Your task to perform on an android device: turn on the 12-hour format for clock Image 0: 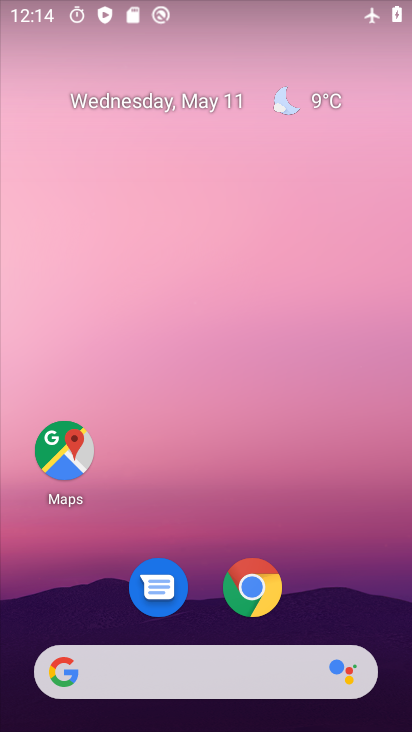
Step 0: drag from (385, 640) to (212, 196)
Your task to perform on an android device: turn on the 12-hour format for clock Image 1: 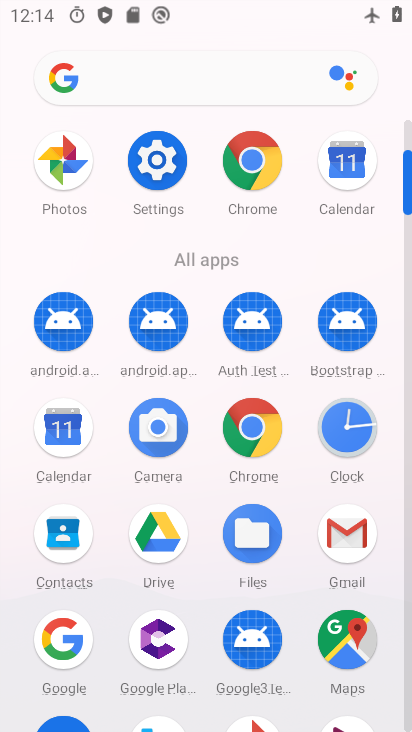
Step 1: click (339, 400)
Your task to perform on an android device: turn on the 12-hour format for clock Image 2: 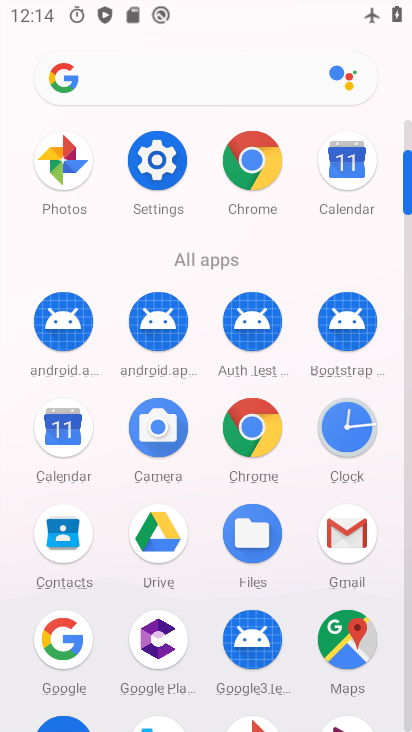
Step 2: click (343, 415)
Your task to perform on an android device: turn on the 12-hour format for clock Image 3: 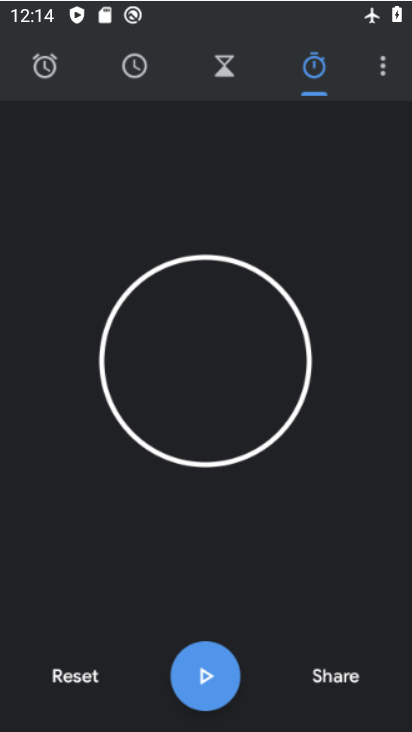
Step 3: click (329, 402)
Your task to perform on an android device: turn on the 12-hour format for clock Image 4: 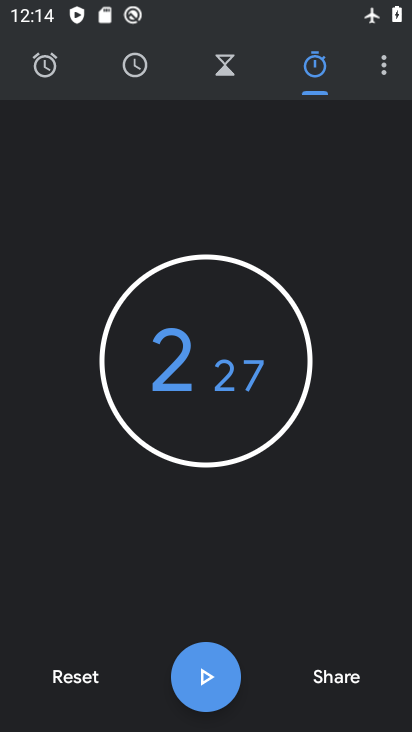
Step 4: click (380, 62)
Your task to perform on an android device: turn on the 12-hour format for clock Image 5: 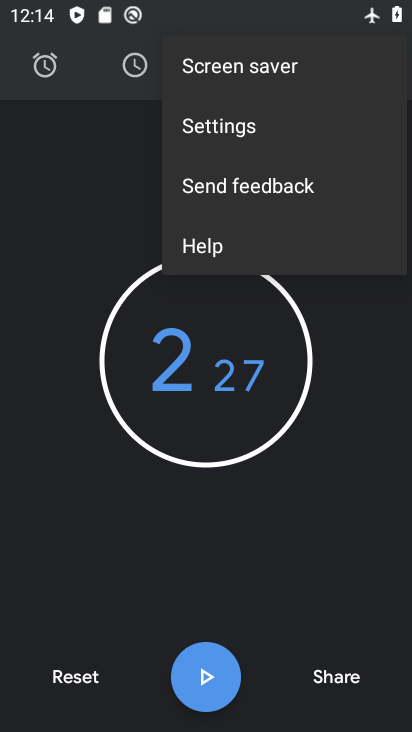
Step 5: click (236, 127)
Your task to perform on an android device: turn on the 12-hour format for clock Image 6: 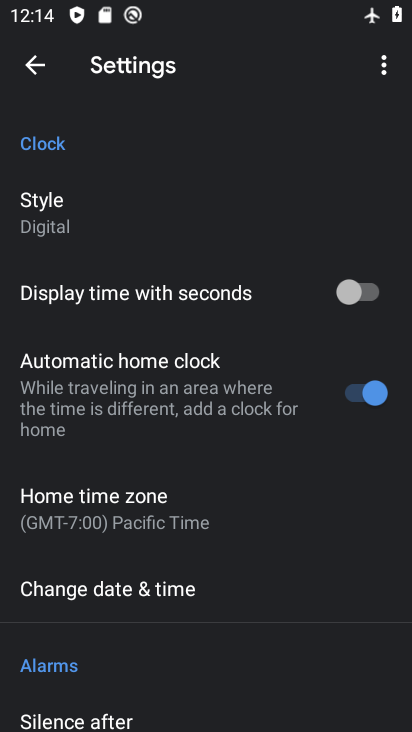
Step 6: drag from (123, 559) to (122, 593)
Your task to perform on an android device: turn on the 12-hour format for clock Image 7: 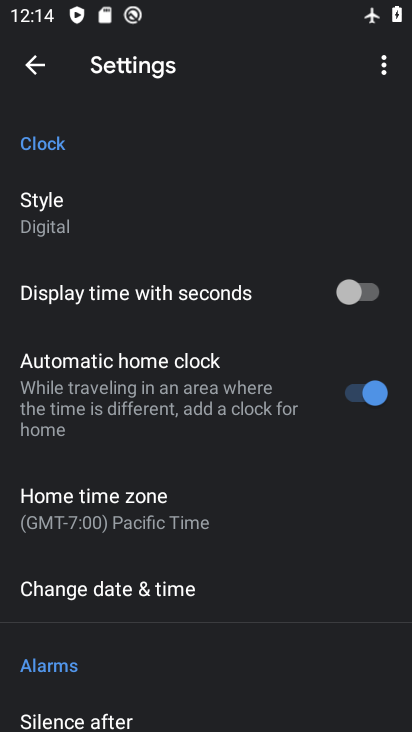
Step 7: click (108, 585)
Your task to perform on an android device: turn on the 12-hour format for clock Image 8: 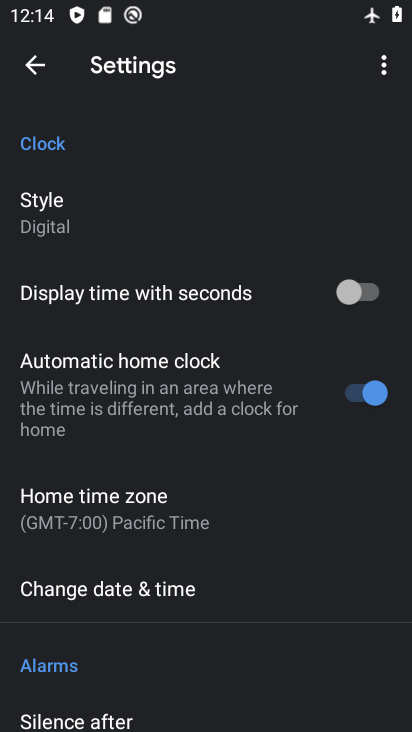
Step 8: click (109, 584)
Your task to perform on an android device: turn on the 12-hour format for clock Image 9: 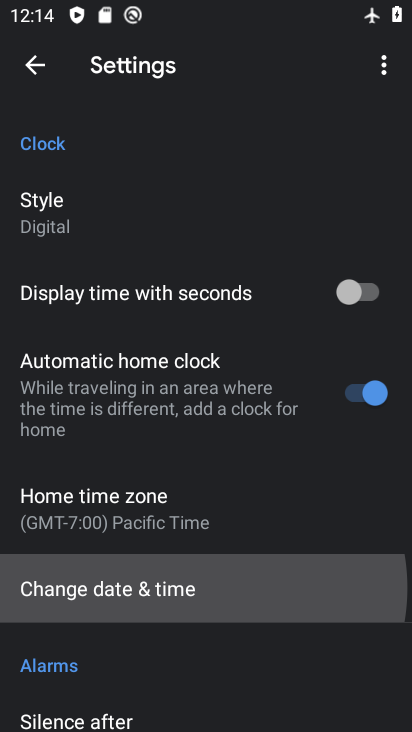
Step 9: click (111, 584)
Your task to perform on an android device: turn on the 12-hour format for clock Image 10: 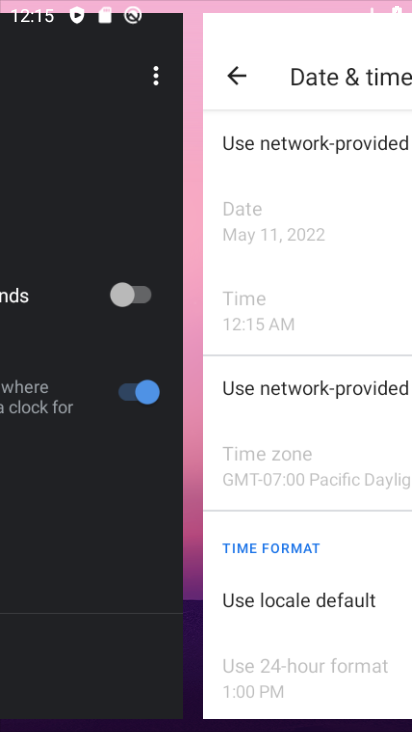
Step 10: click (111, 584)
Your task to perform on an android device: turn on the 12-hour format for clock Image 11: 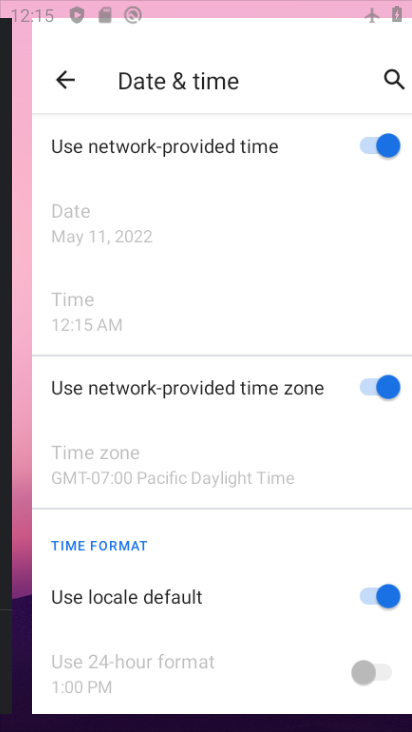
Step 11: click (112, 582)
Your task to perform on an android device: turn on the 12-hour format for clock Image 12: 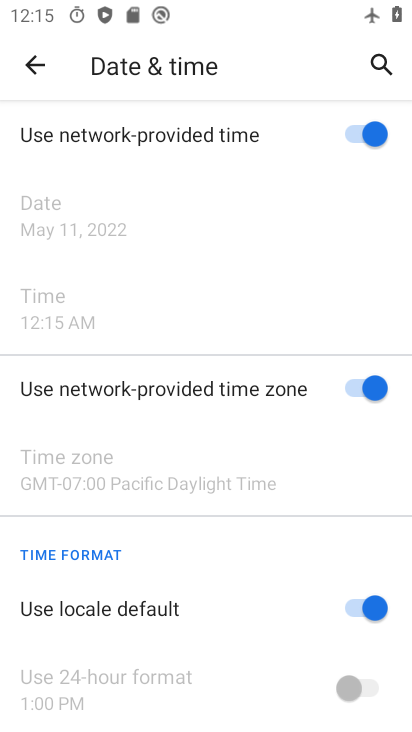
Step 12: task complete